Your task to perform on an android device: change the clock display to show seconds Image 0: 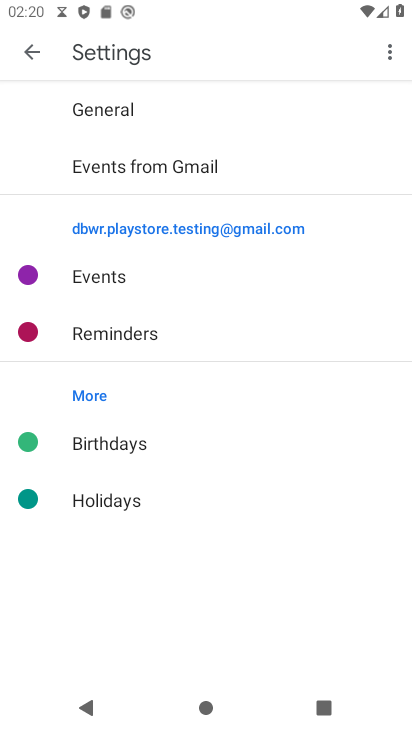
Step 0: press home button
Your task to perform on an android device: change the clock display to show seconds Image 1: 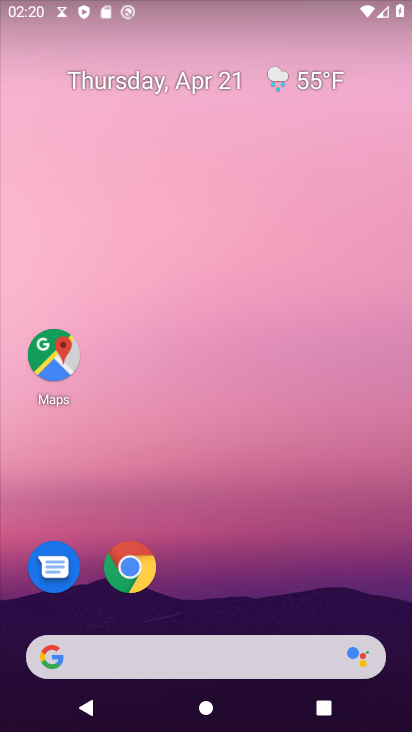
Step 1: drag from (193, 655) to (280, 216)
Your task to perform on an android device: change the clock display to show seconds Image 2: 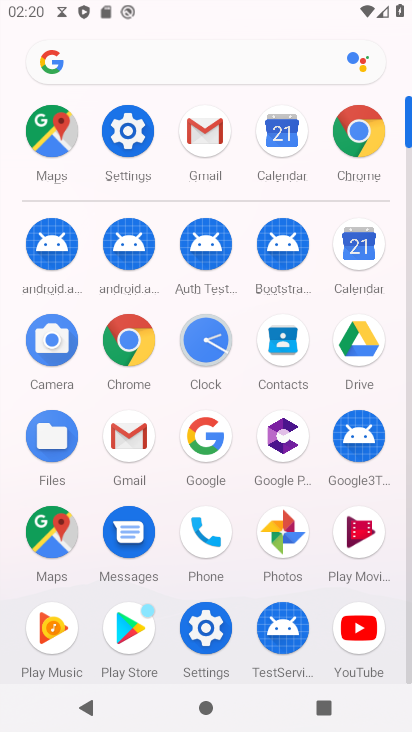
Step 2: click (206, 344)
Your task to perform on an android device: change the clock display to show seconds Image 3: 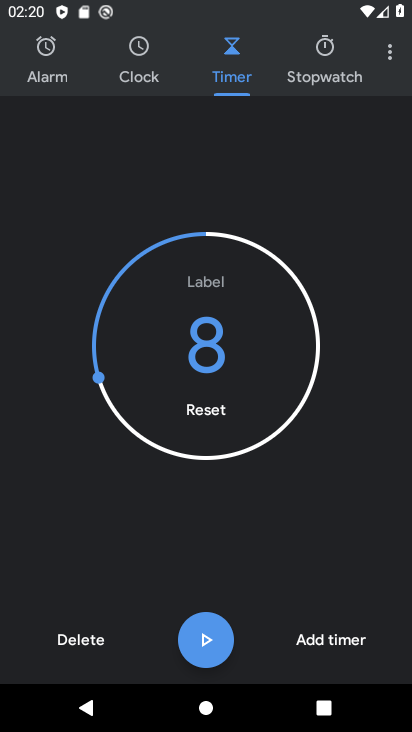
Step 3: click (391, 56)
Your task to perform on an android device: change the clock display to show seconds Image 4: 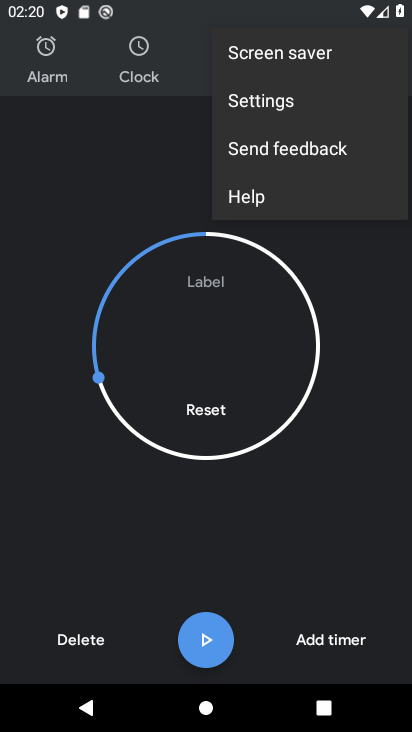
Step 4: click (286, 103)
Your task to perform on an android device: change the clock display to show seconds Image 5: 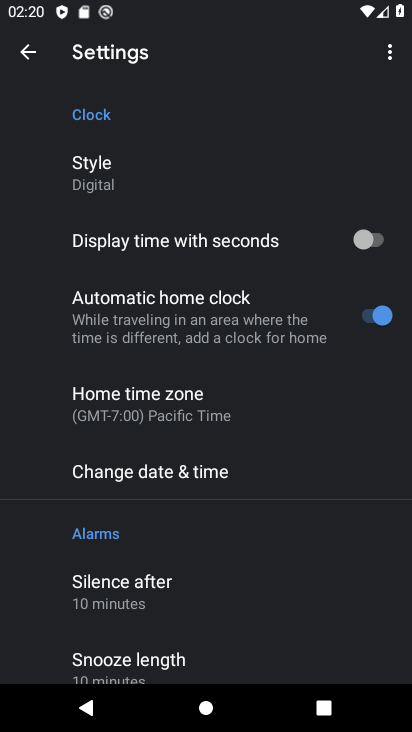
Step 5: click (378, 244)
Your task to perform on an android device: change the clock display to show seconds Image 6: 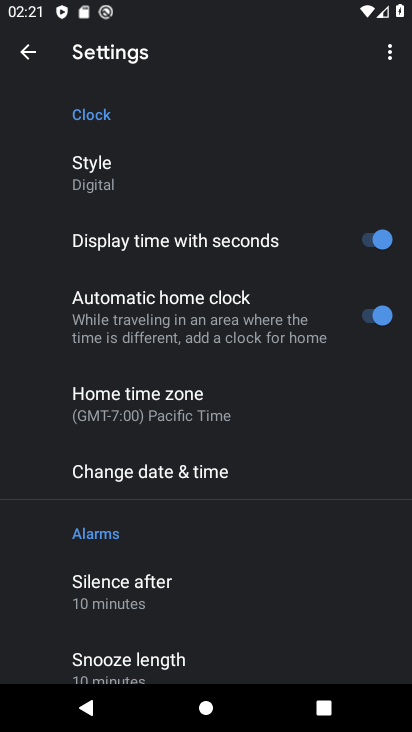
Step 6: task complete